Your task to perform on an android device: empty trash in google photos Image 0: 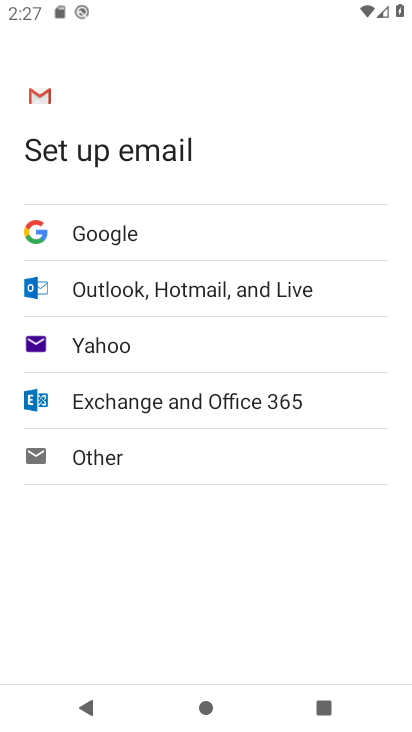
Step 0: press back button
Your task to perform on an android device: empty trash in google photos Image 1: 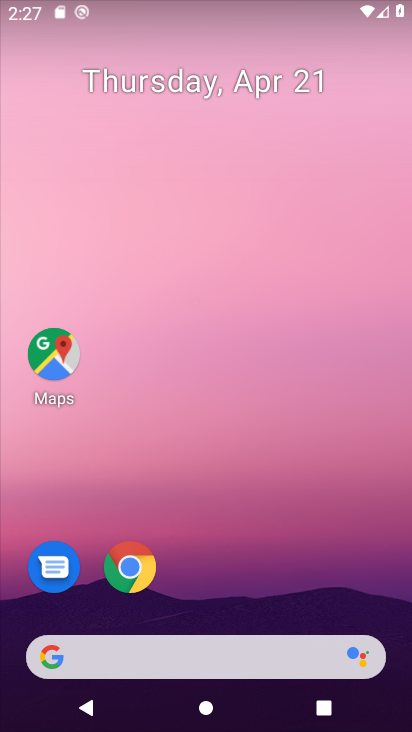
Step 1: drag from (298, 491) to (208, 55)
Your task to perform on an android device: empty trash in google photos Image 2: 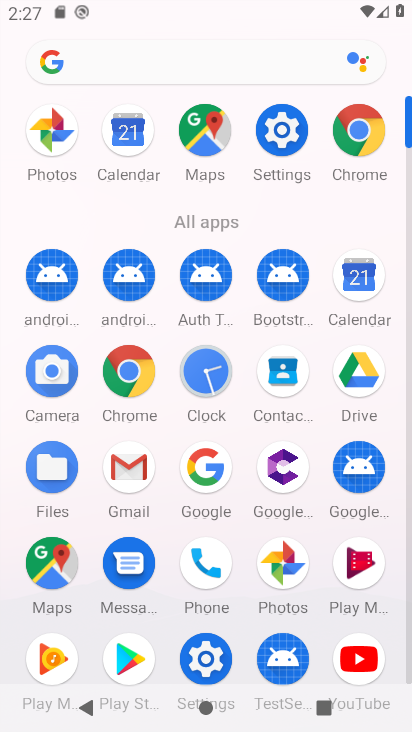
Step 2: click (51, 128)
Your task to perform on an android device: empty trash in google photos Image 3: 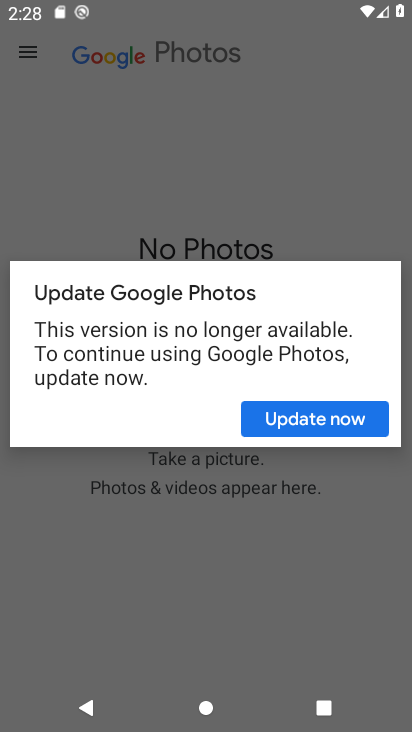
Step 3: click (281, 428)
Your task to perform on an android device: empty trash in google photos Image 4: 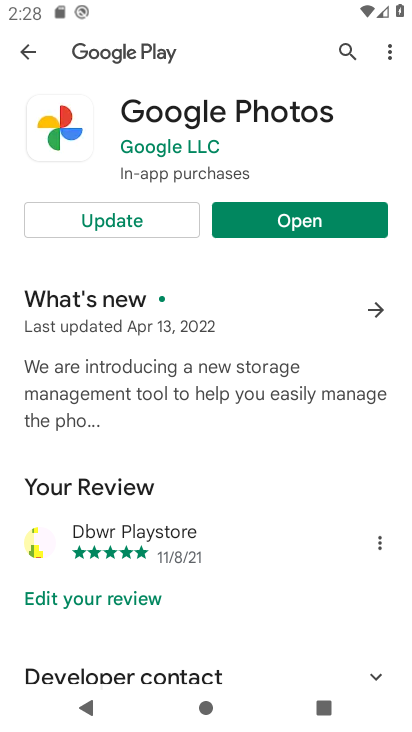
Step 4: click (115, 220)
Your task to perform on an android device: empty trash in google photos Image 5: 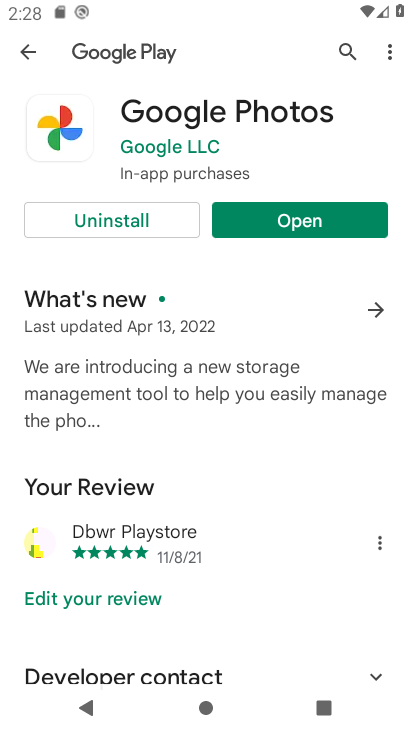
Step 5: click (251, 217)
Your task to perform on an android device: empty trash in google photos Image 6: 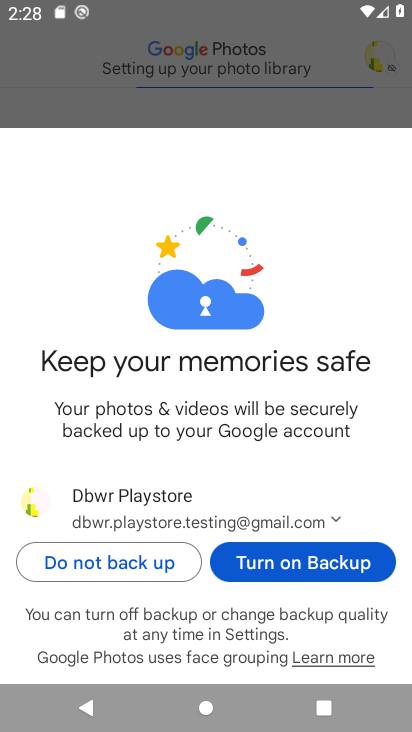
Step 6: click (301, 575)
Your task to perform on an android device: empty trash in google photos Image 7: 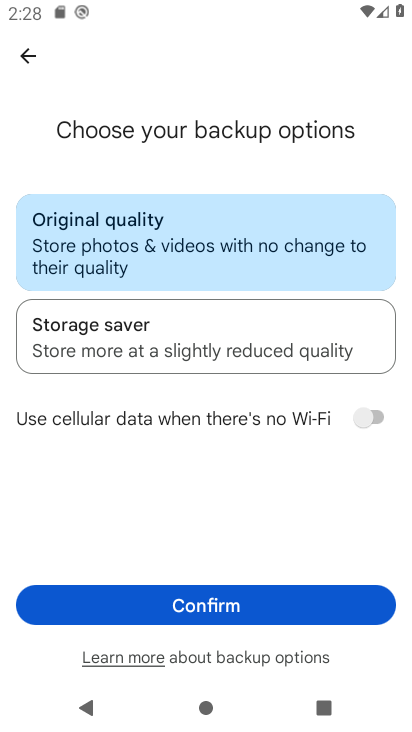
Step 7: click (271, 594)
Your task to perform on an android device: empty trash in google photos Image 8: 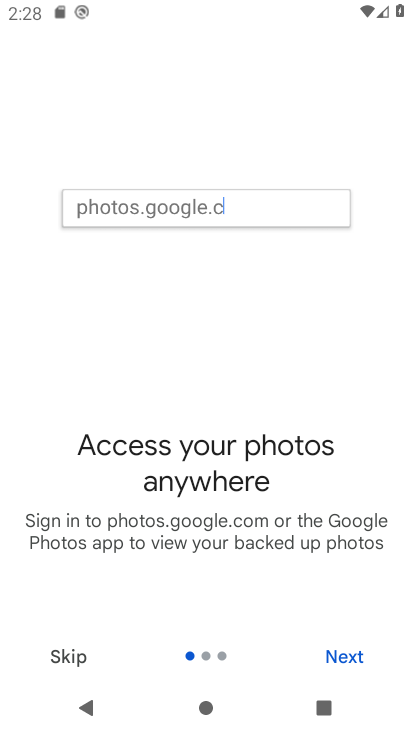
Step 8: click (333, 633)
Your task to perform on an android device: empty trash in google photos Image 9: 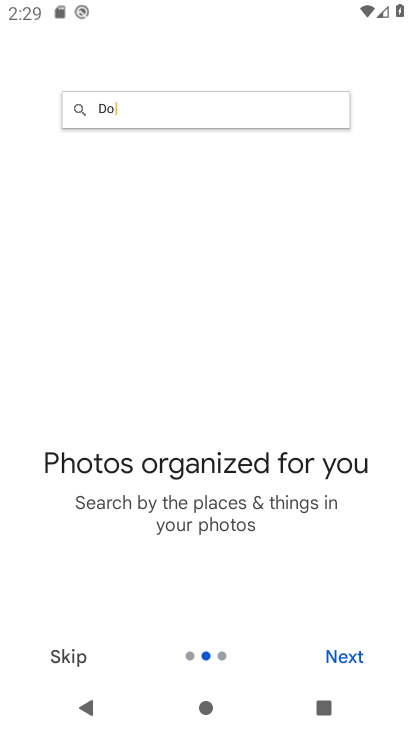
Step 9: click (333, 638)
Your task to perform on an android device: empty trash in google photos Image 10: 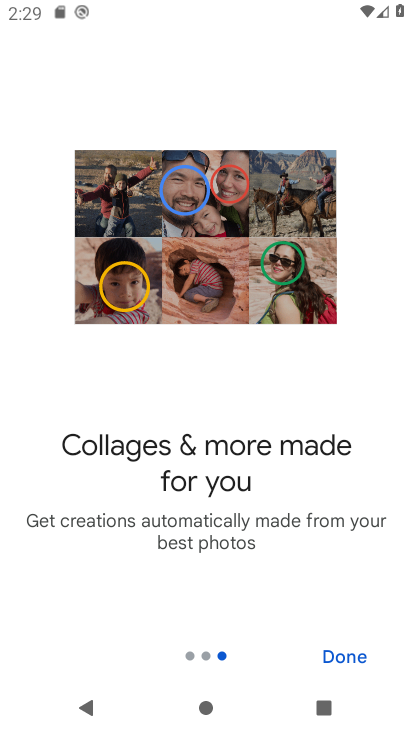
Step 10: click (335, 662)
Your task to perform on an android device: empty trash in google photos Image 11: 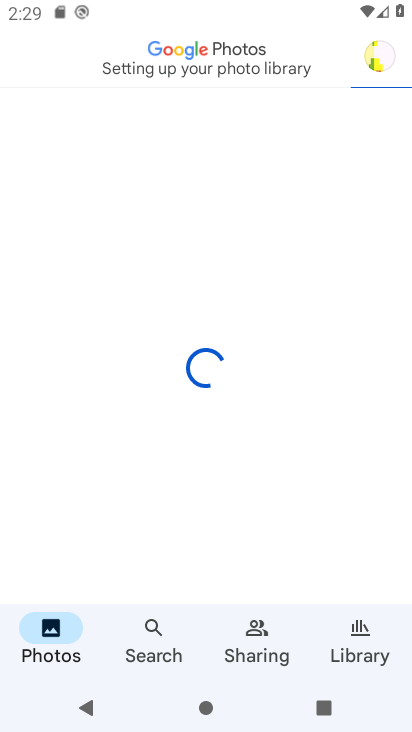
Step 11: click (353, 659)
Your task to perform on an android device: empty trash in google photos Image 12: 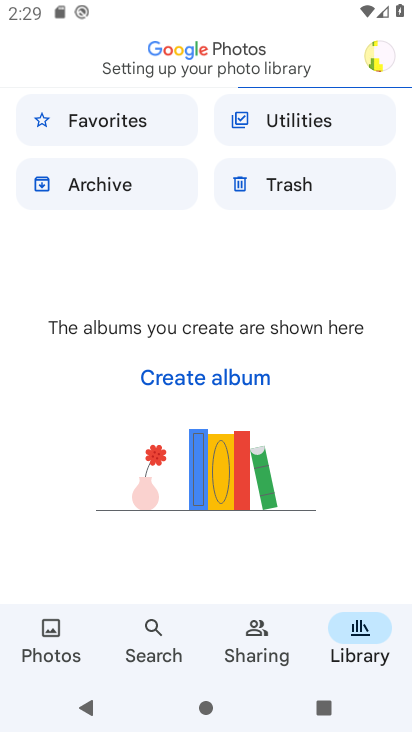
Step 12: click (297, 190)
Your task to perform on an android device: empty trash in google photos Image 13: 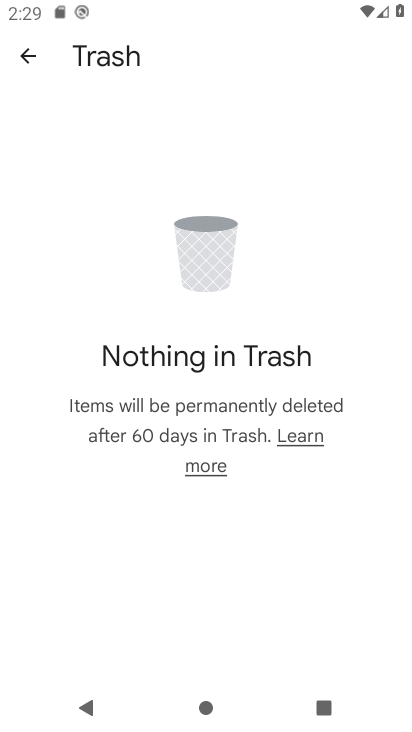
Step 13: task complete